Your task to perform on an android device: delete the emails in spam in the gmail app Image 0: 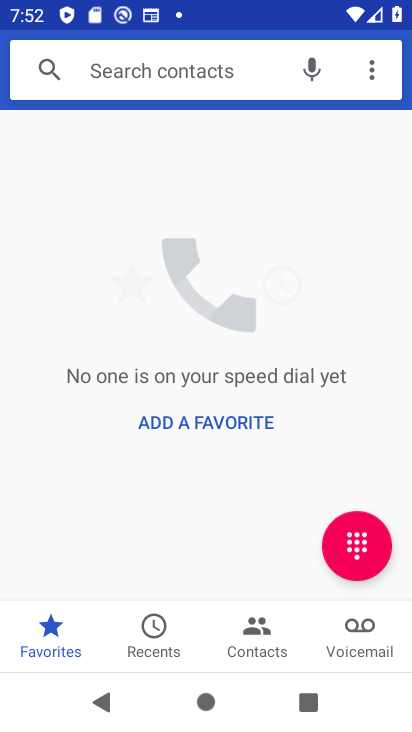
Step 0: press home button
Your task to perform on an android device: delete the emails in spam in the gmail app Image 1: 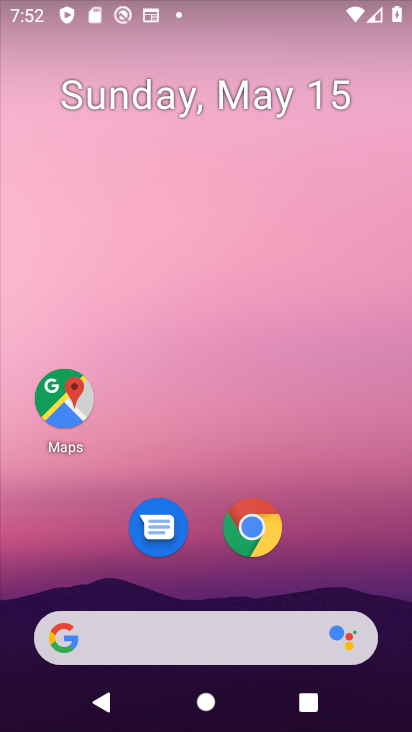
Step 1: drag from (210, 582) to (230, 123)
Your task to perform on an android device: delete the emails in spam in the gmail app Image 2: 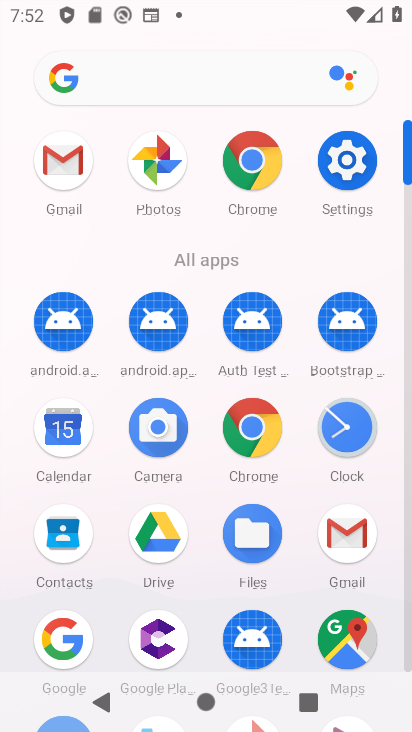
Step 2: click (87, 174)
Your task to perform on an android device: delete the emails in spam in the gmail app Image 3: 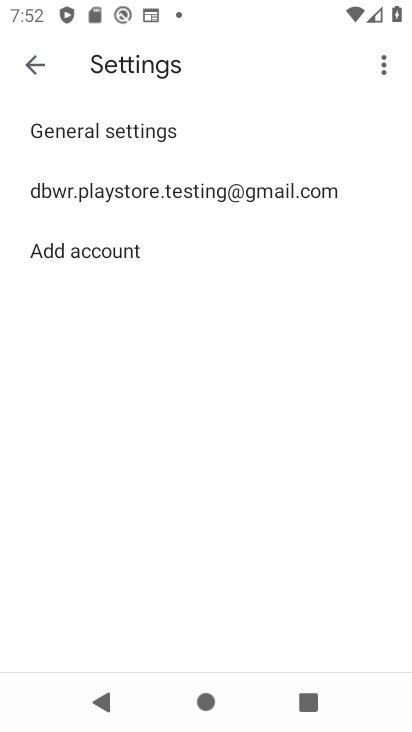
Step 3: click (35, 61)
Your task to perform on an android device: delete the emails in spam in the gmail app Image 4: 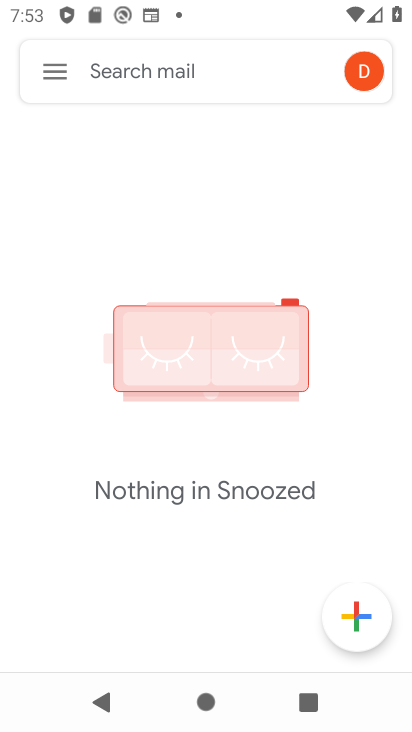
Step 4: click (51, 82)
Your task to perform on an android device: delete the emails in spam in the gmail app Image 5: 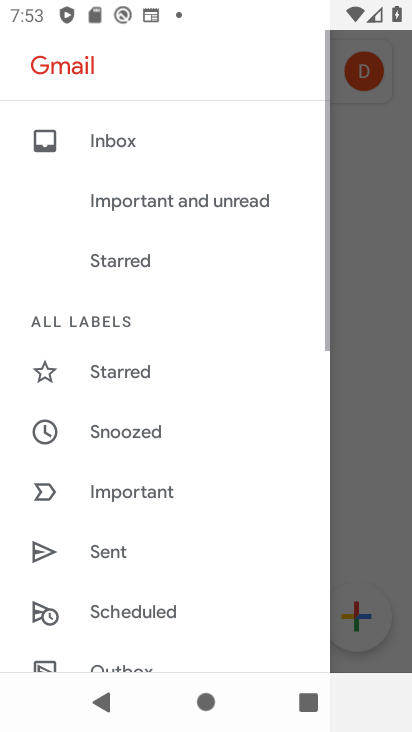
Step 5: click (136, 139)
Your task to perform on an android device: delete the emails in spam in the gmail app Image 6: 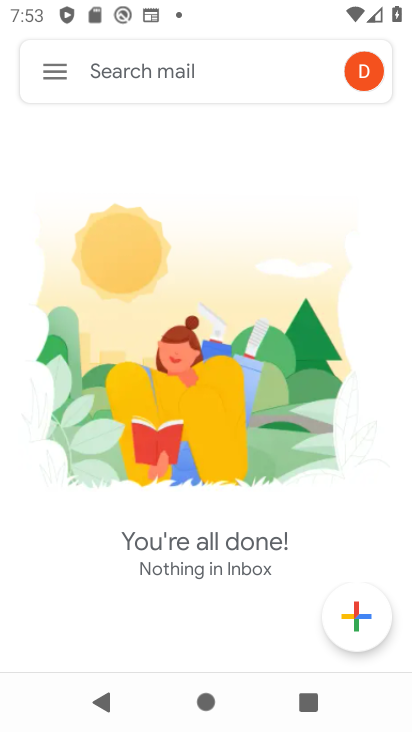
Step 6: task complete